Your task to perform on an android device: Open the Play Movies app and select the watchlist tab. Image 0: 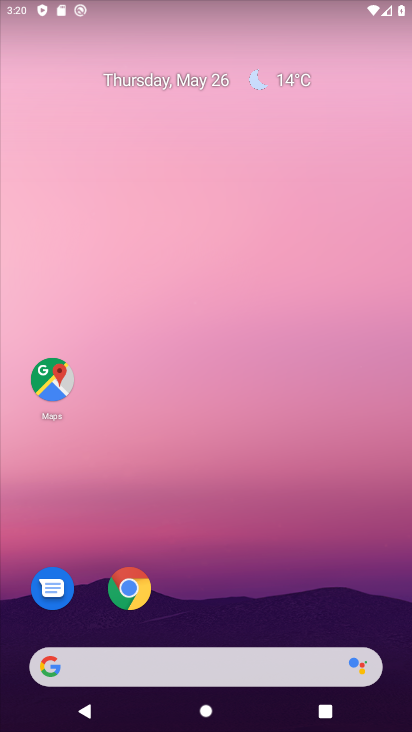
Step 0: drag from (279, 626) to (309, 196)
Your task to perform on an android device: Open the Play Movies app and select the watchlist tab. Image 1: 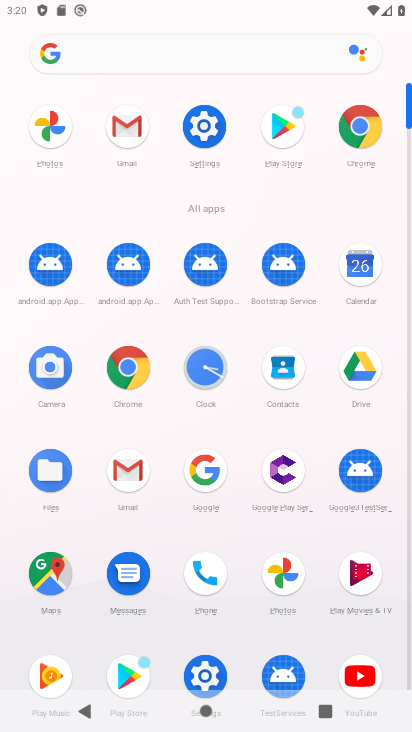
Step 1: click (366, 582)
Your task to perform on an android device: Open the Play Movies app and select the watchlist tab. Image 2: 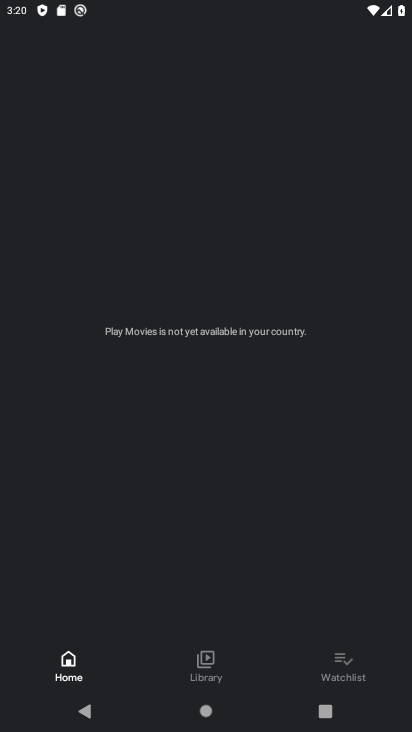
Step 2: click (352, 663)
Your task to perform on an android device: Open the Play Movies app and select the watchlist tab. Image 3: 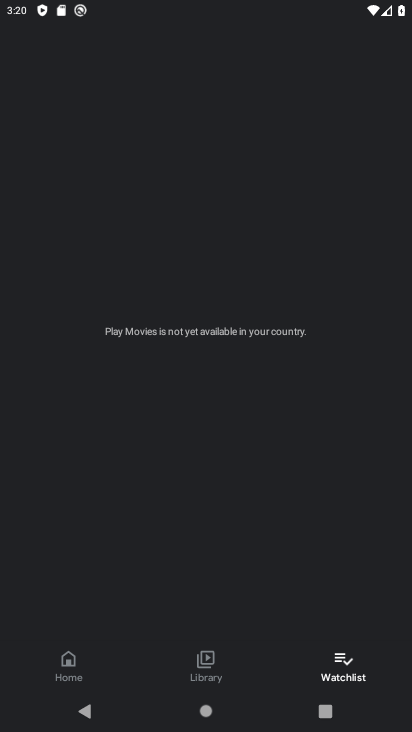
Step 3: task complete